Your task to perform on an android device: toggle notifications settings in the gmail app Image 0: 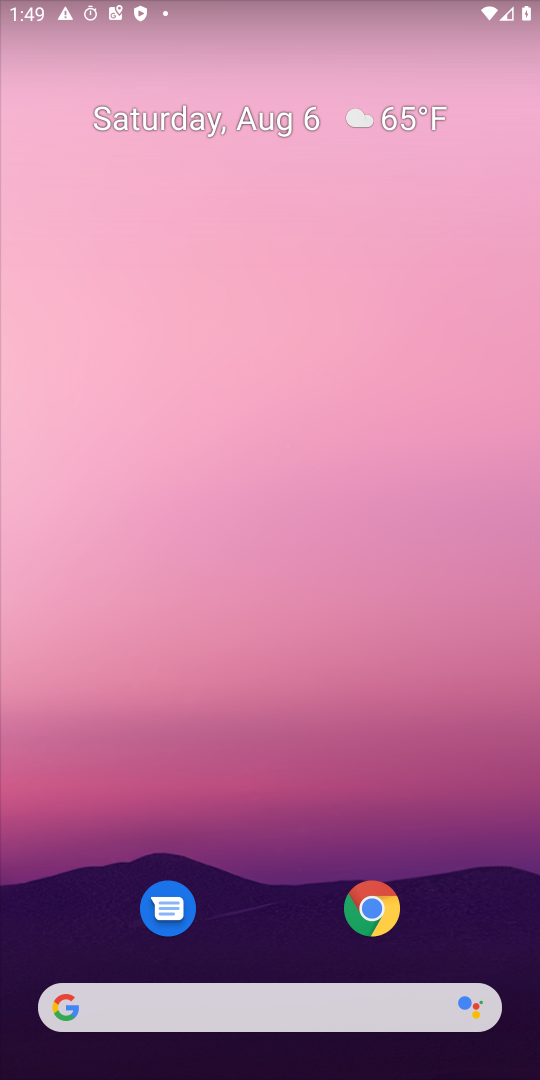
Step 0: drag from (241, 929) to (169, 129)
Your task to perform on an android device: toggle notifications settings in the gmail app Image 1: 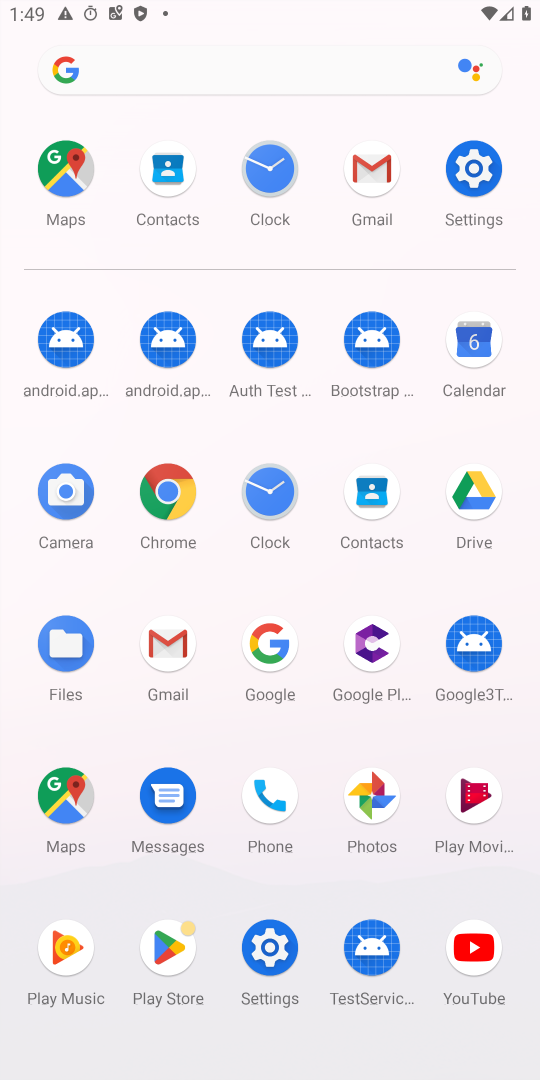
Step 1: click (156, 650)
Your task to perform on an android device: toggle notifications settings in the gmail app Image 2: 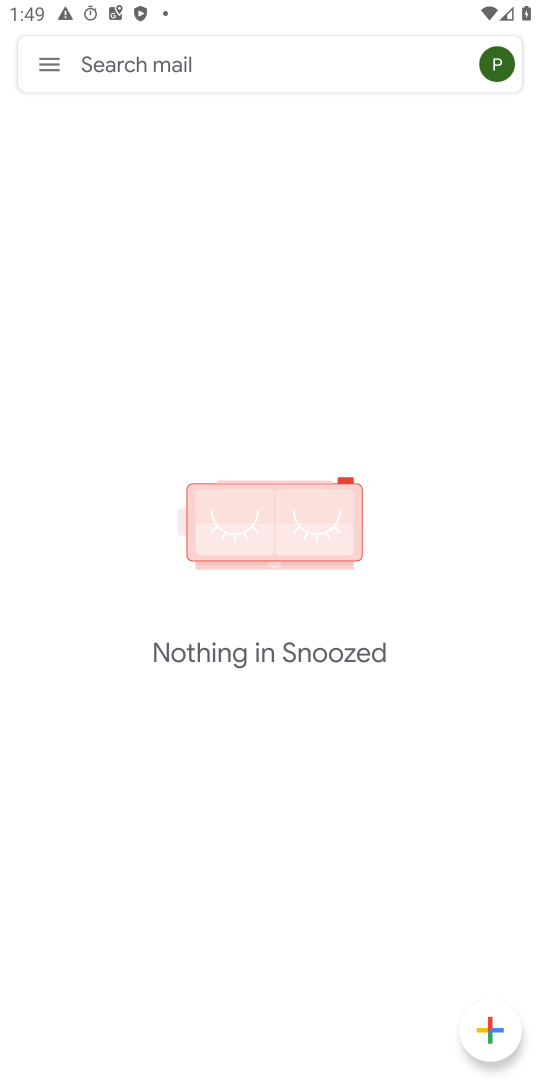
Step 2: click (48, 56)
Your task to perform on an android device: toggle notifications settings in the gmail app Image 3: 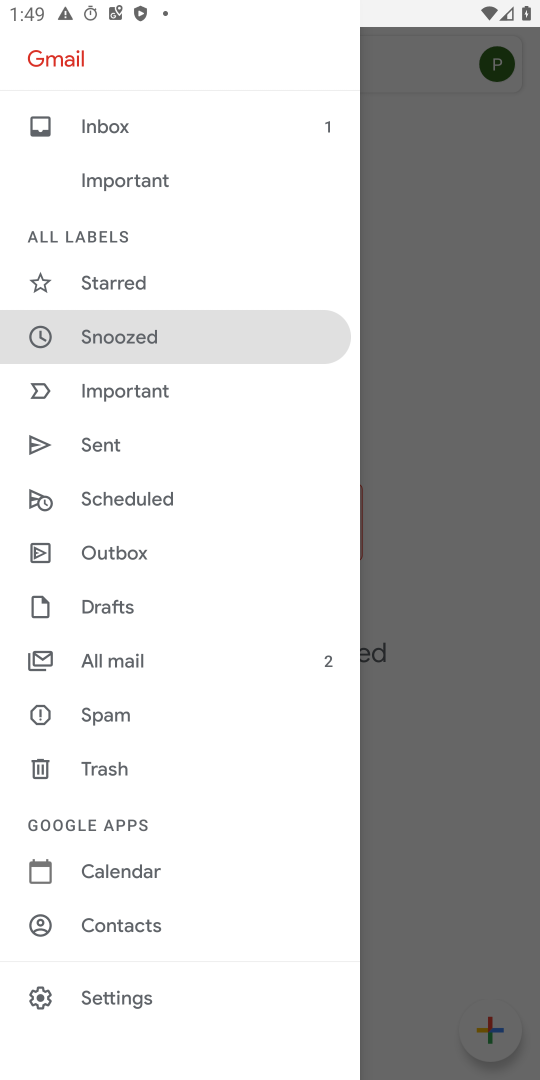
Step 3: click (166, 997)
Your task to perform on an android device: toggle notifications settings in the gmail app Image 4: 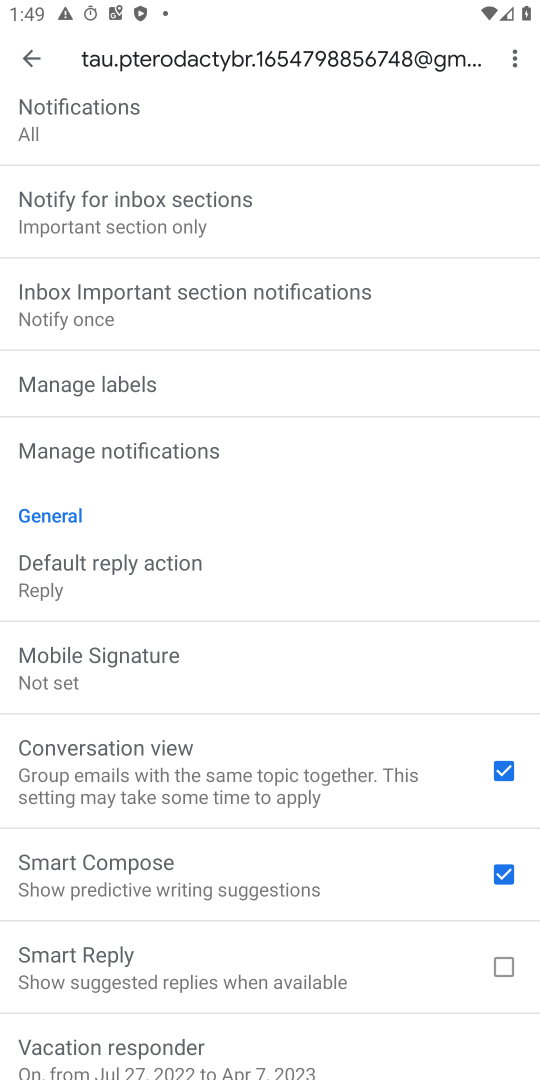
Step 4: click (102, 434)
Your task to perform on an android device: toggle notifications settings in the gmail app Image 5: 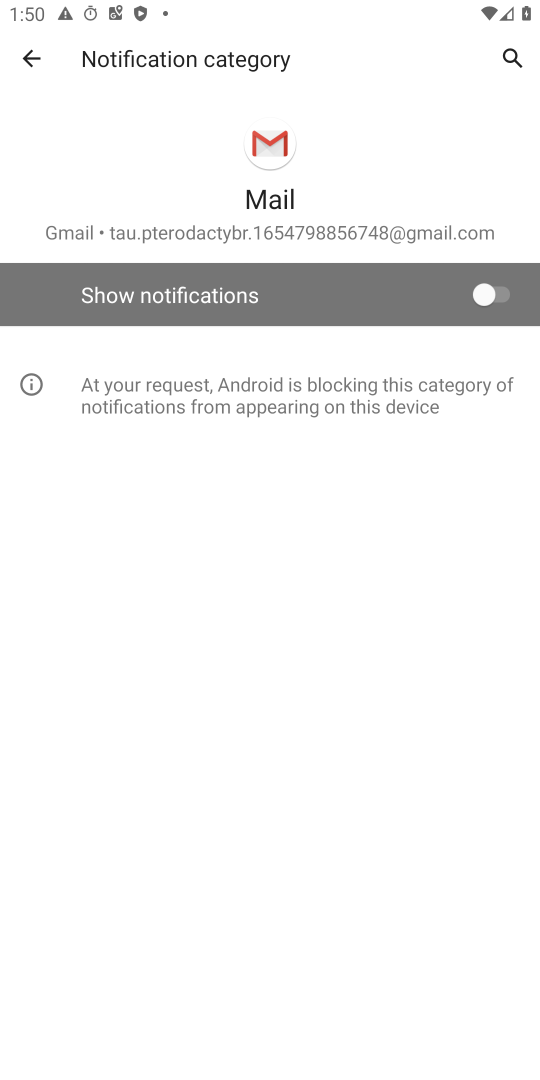
Step 5: click (502, 299)
Your task to perform on an android device: toggle notifications settings in the gmail app Image 6: 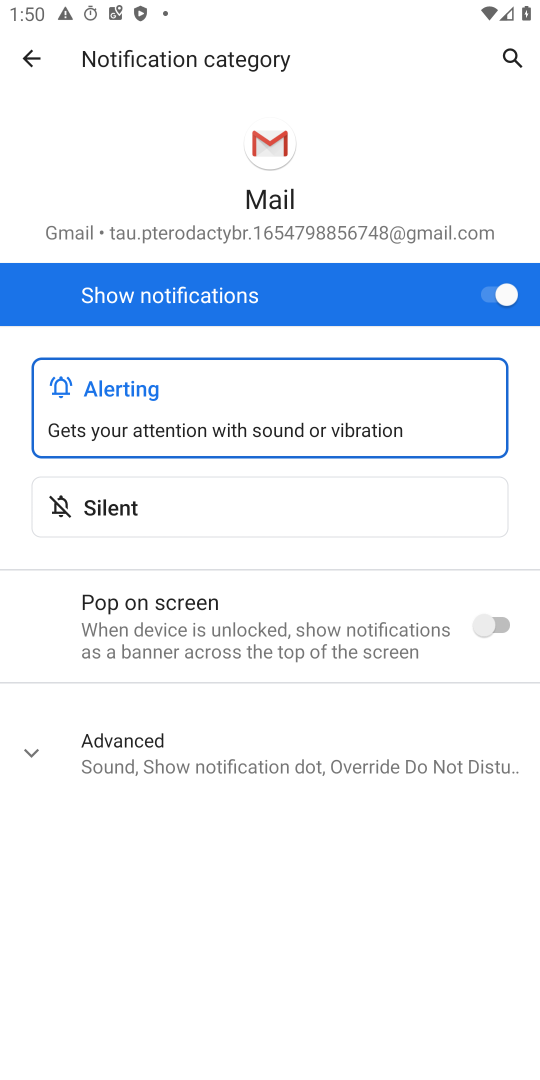
Step 6: task complete